Your task to perform on an android device: Open Google Maps and go to "Timeline" Image 0: 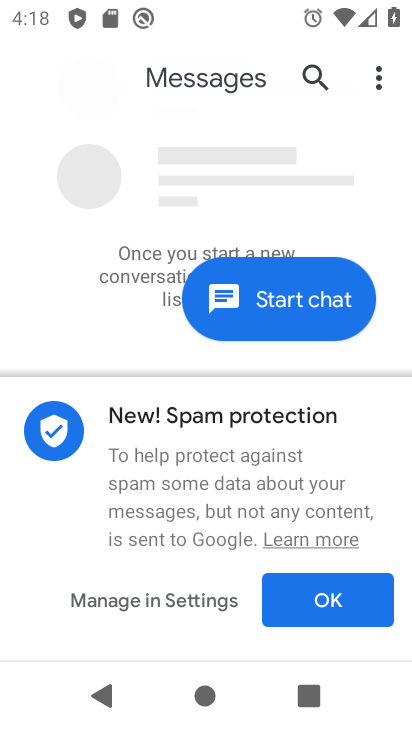
Step 0: press home button
Your task to perform on an android device: Open Google Maps and go to "Timeline" Image 1: 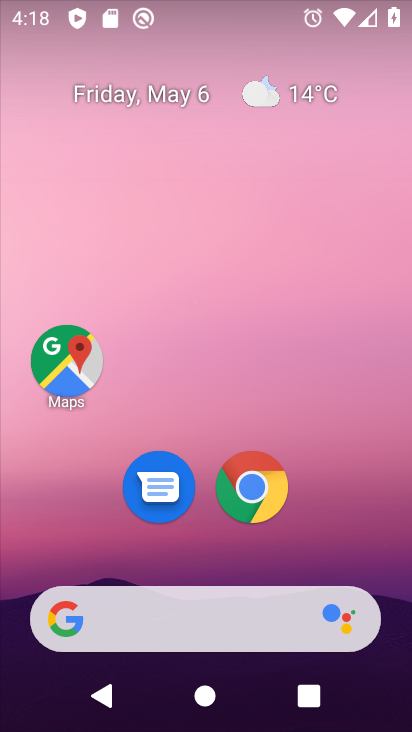
Step 1: drag from (210, 573) to (313, 10)
Your task to perform on an android device: Open Google Maps and go to "Timeline" Image 2: 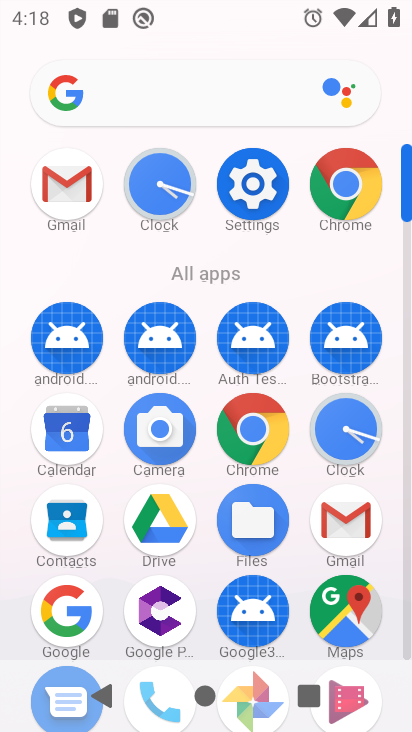
Step 2: click (345, 604)
Your task to perform on an android device: Open Google Maps and go to "Timeline" Image 3: 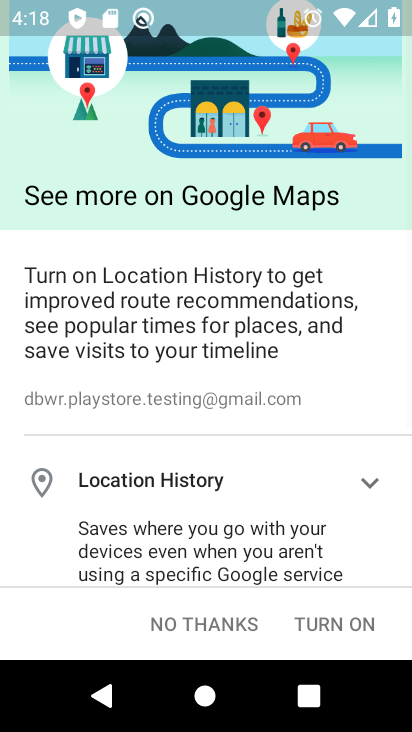
Step 3: click (334, 611)
Your task to perform on an android device: Open Google Maps and go to "Timeline" Image 4: 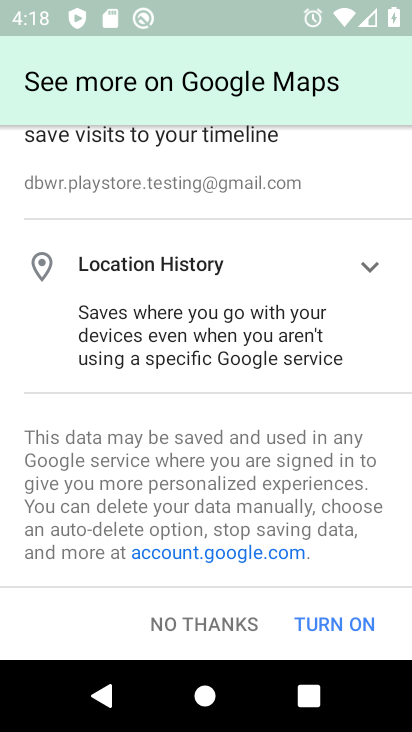
Step 4: click (341, 638)
Your task to perform on an android device: Open Google Maps and go to "Timeline" Image 5: 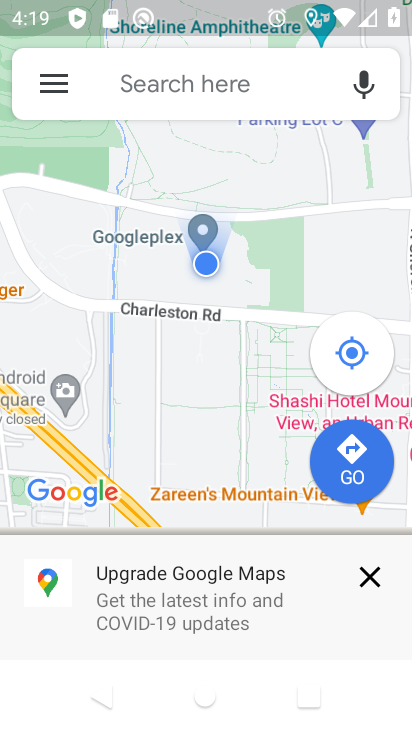
Step 5: click (44, 81)
Your task to perform on an android device: Open Google Maps and go to "Timeline" Image 6: 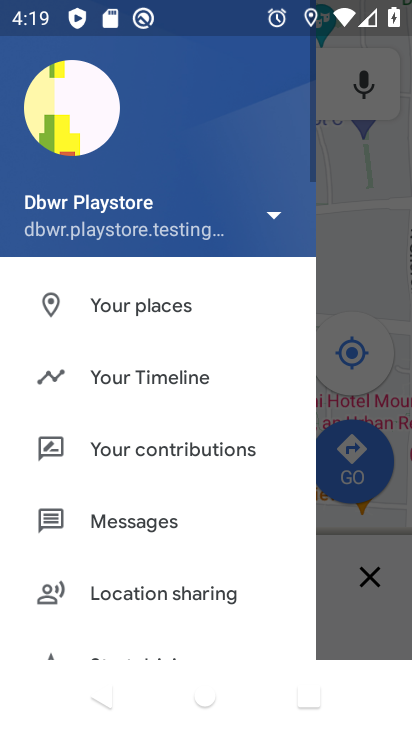
Step 6: click (152, 364)
Your task to perform on an android device: Open Google Maps and go to "Timeline" Image 7: 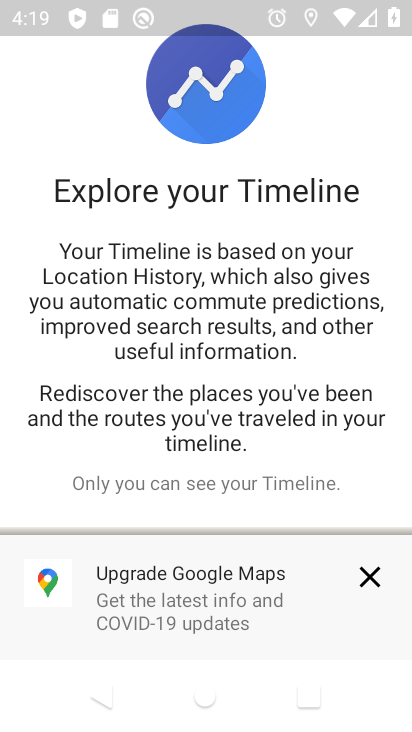
Step 7: click (362, 565)
Your task to perform on an android device: Open Google Maps and go to "Timeline" Image 8: 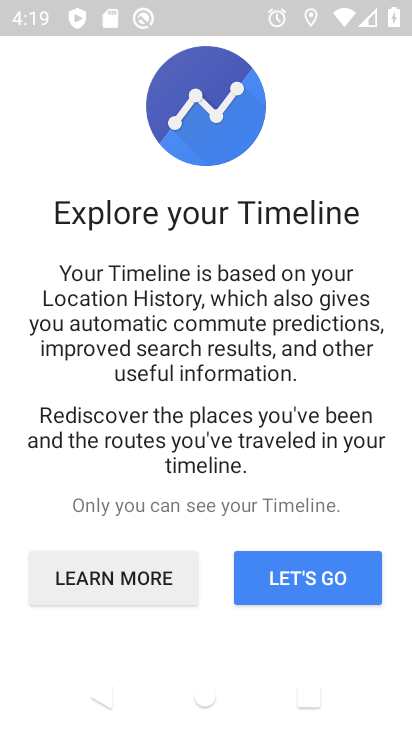
Step 8: click (346, 569)
Your task to perform on an android device: Open Google Maps and go to "Timeline" Image 9: 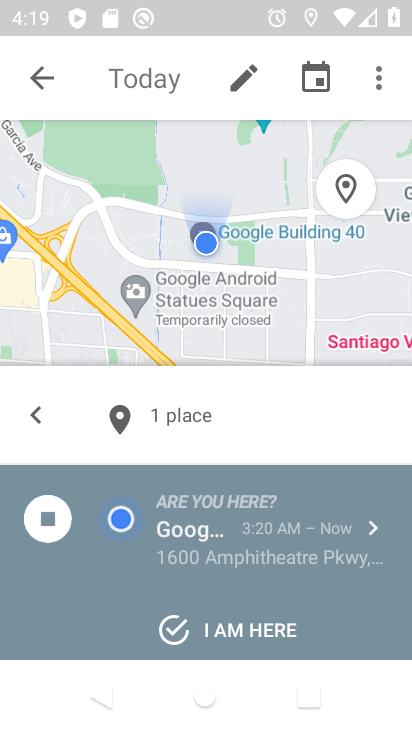
Step 9: task complete